Your task to perform on an android device: Open Google Maps Image 0: 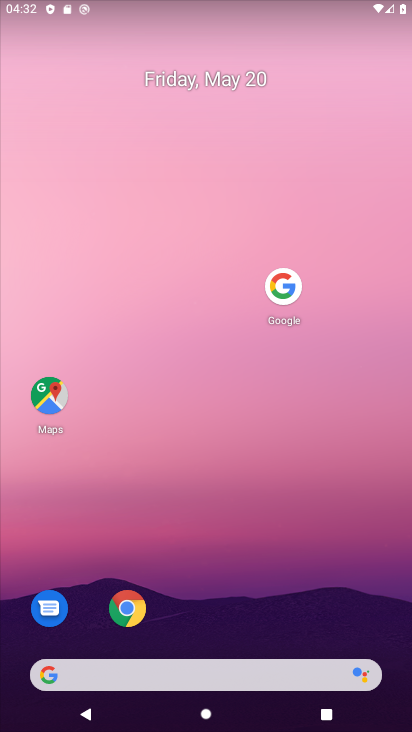
Step 0: click (41, 412)
Your task to perform on an android device: Open Google Maps Image 1: 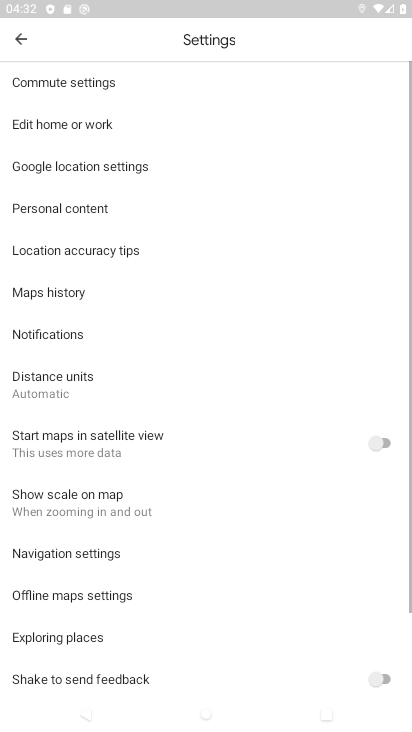
Step 1: task complete